Your task to perform on an android device: check google app version Image 0: 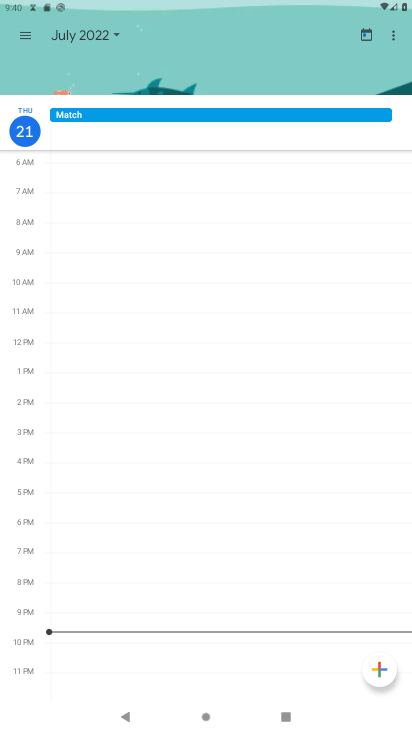
Step 0: press home button
Your task to perform on an android device: check google app version Image 1: 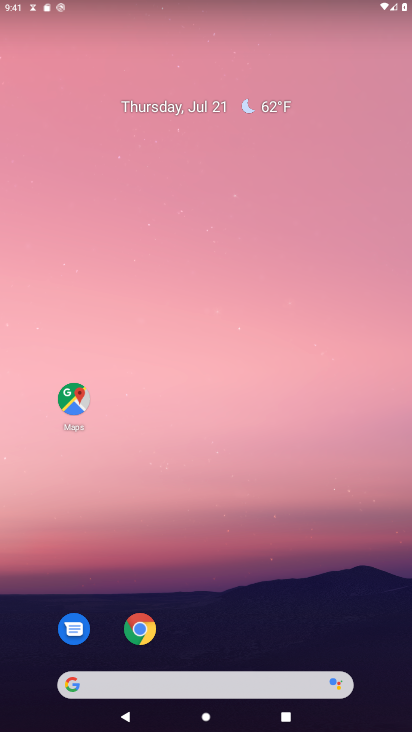
Step 1: drag from (206, 616) to (206, 151)
Your task to perform on an android device: check google app version Image 2: 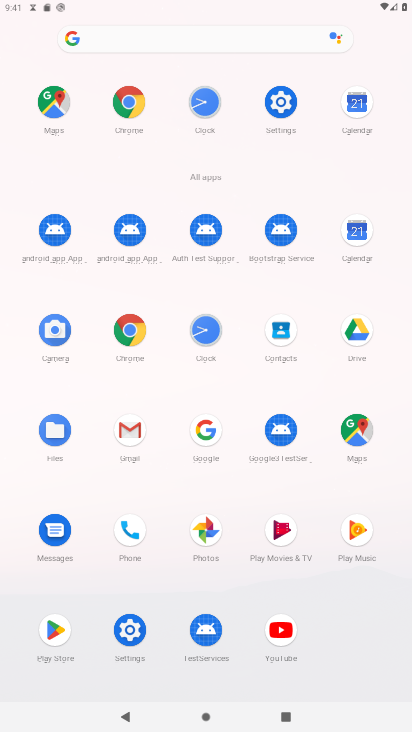
Step 2: click (204, 428)
Your task to perform on an android device: check google app version Image 3: 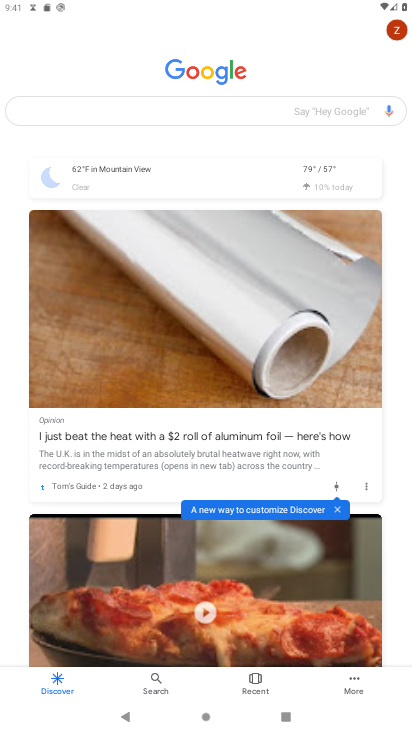
Step 3: click (400, 23)
Your task to perform on an android device: check google app version Image 4: 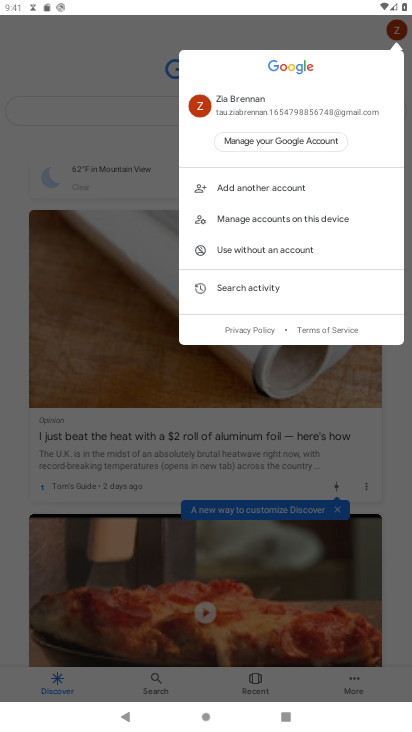
Step 4: click (368, 678)
Your task to perform on an android device: check google app version Image 5: 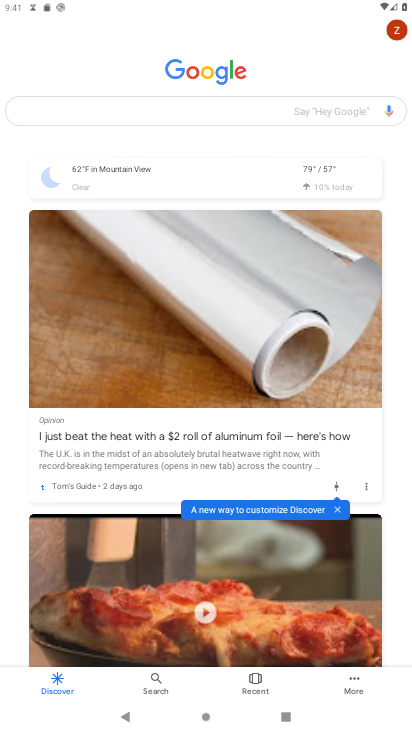
Step 5: click (366, 678)
Your task to perform on an android device: check google app version Image 6: 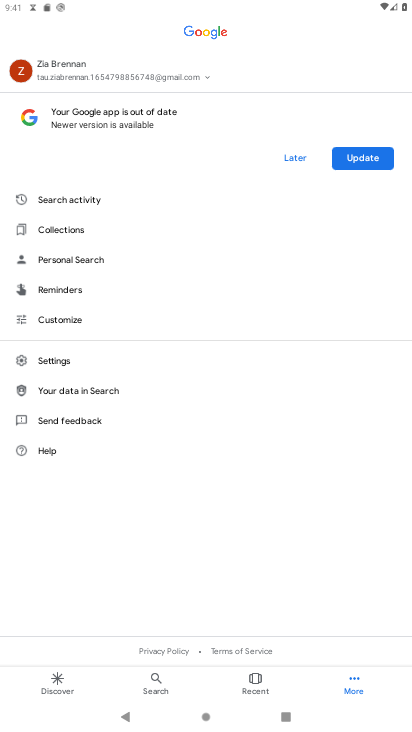
Step 6: click (65, 357)
Your task to perform on an android device: check google app version Image 7: 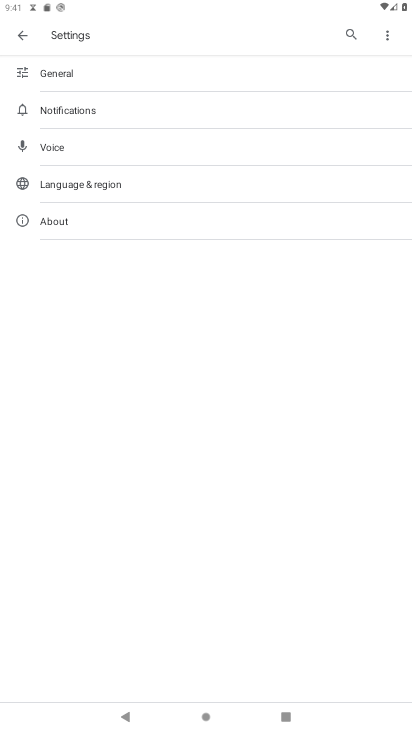
Step 7: click (93, 225)
Your task to perform on an android device: check google app version Image 8: 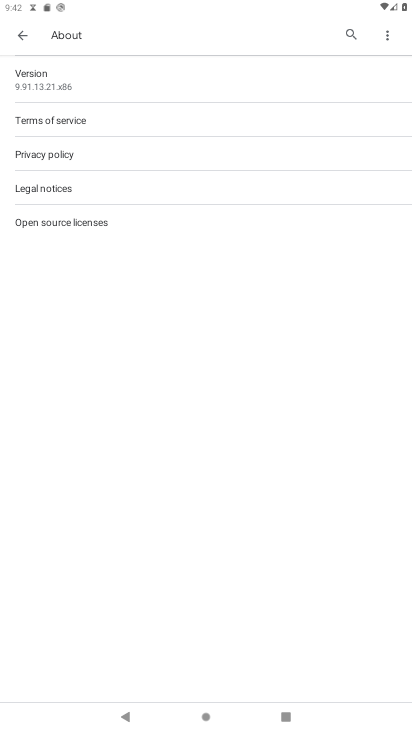
Step 8: task complete